Your task to perform on an android device: Go to sound settings Image 0: 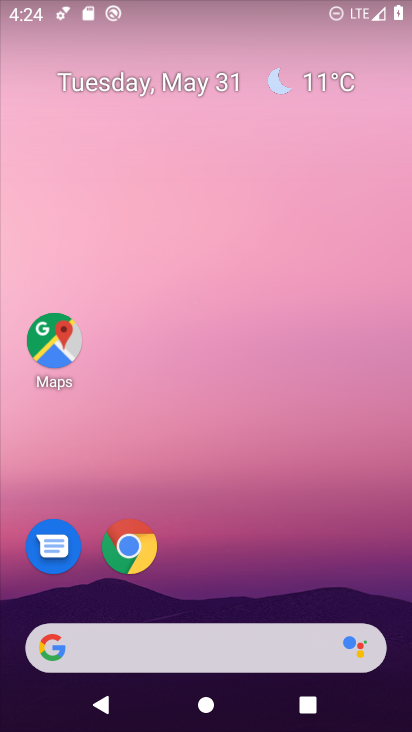
Step 0: drag from (263, 566) to (186, 34)
Your task to perform on an android device: Go to sound settings Image 1: 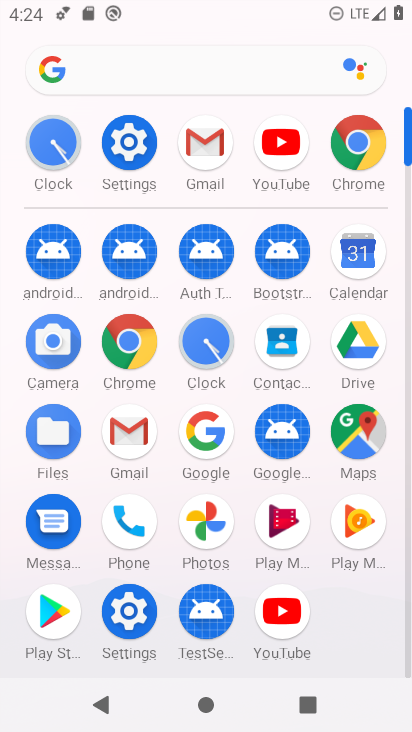
Step 1: click (134, 154)
Your task to perform on an android device: Go to sound settings Image 2: 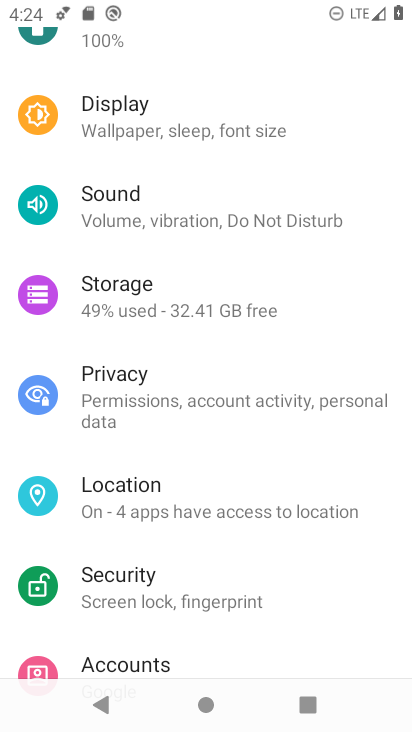
Step 2: click (127, 188)
Your task to perform on an android device: Go to sound settings Image 3: 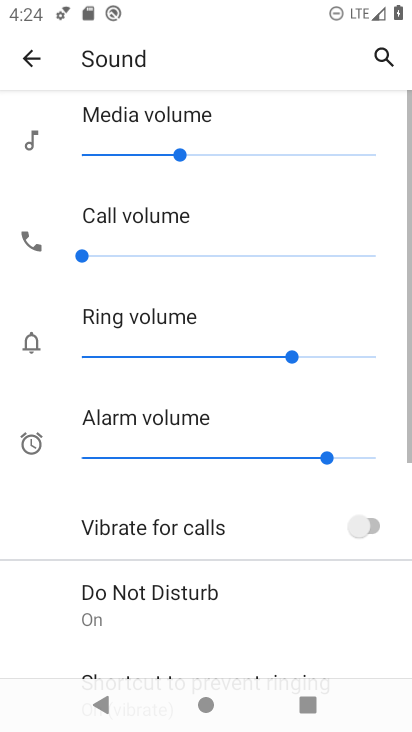
Step 3: task complete